Your task to perform on an android device: Go to accessibility settings Image 0: 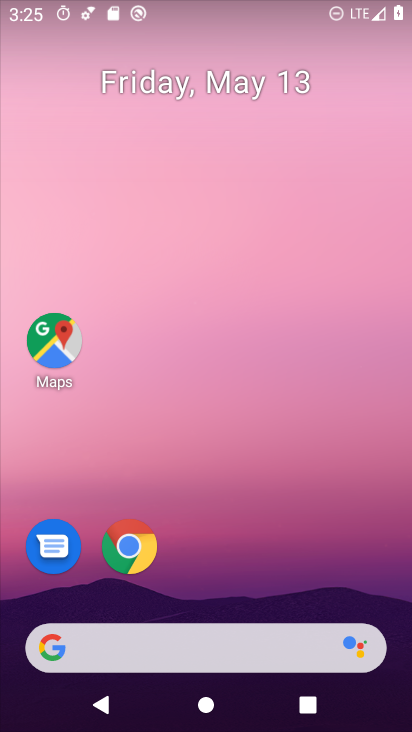
Step 0: drag from (205, 606) to (205, 370)
Your task to perform on an android device: Go to accessibility settings Image 1: 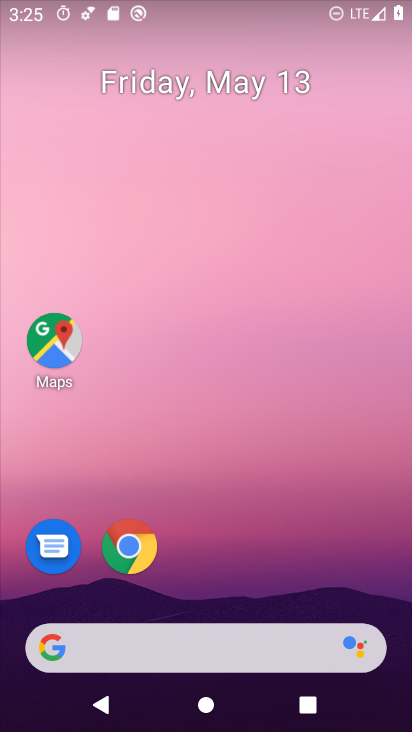
Step 1: drag from (219, 633) to (283, 228)
Your task to perform on an android device: Go to accessibility settings Image 2: 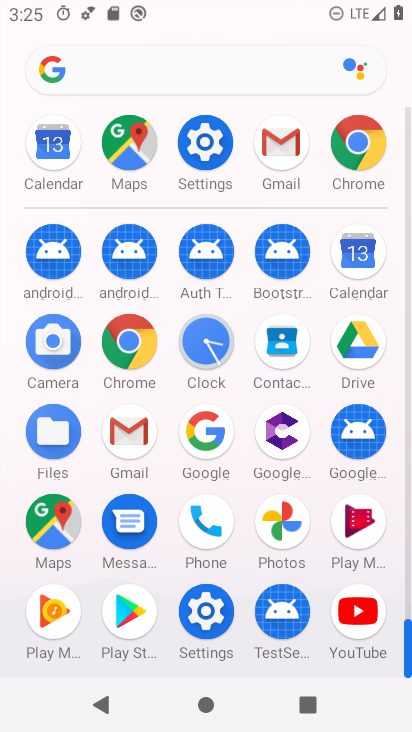
Step 2: click (218, 153)
Your task to perform on an android device: Go to accessibility settings Image 3: 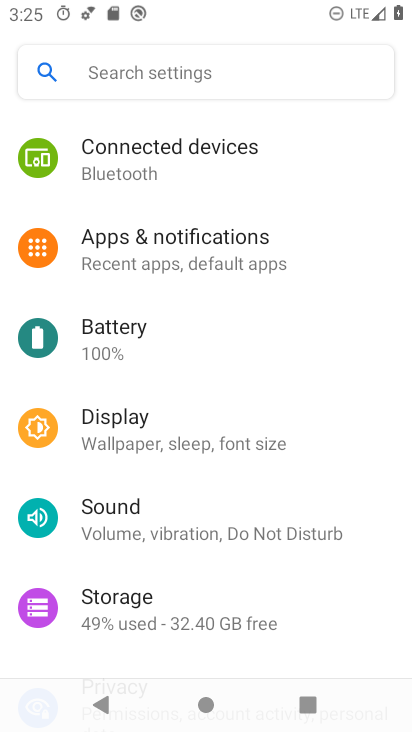
Step 3: drag from (194, 470) to (227, 244)
Your task to perform on an android device: Go to accessibility settings Image 4: 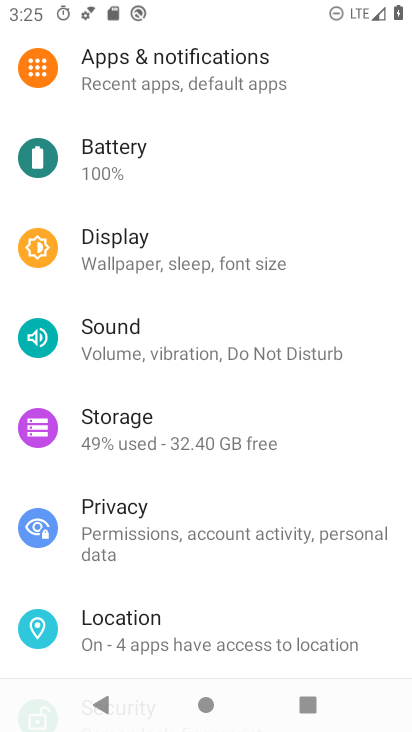
Step 4: drag from (200, 458) to (220, 271)
Your task to perform on an android device: Go to accessibility settings Image 5: 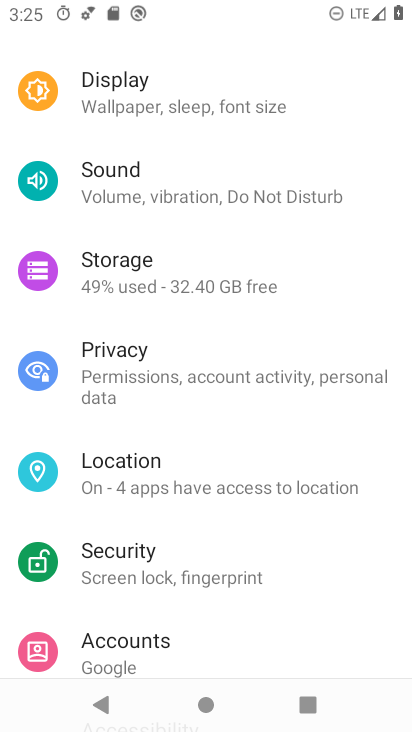
Step 5: drag from (199, 565) to (230, 362)
Your task to perform on an android device: Go to accessibility settings Image 6: 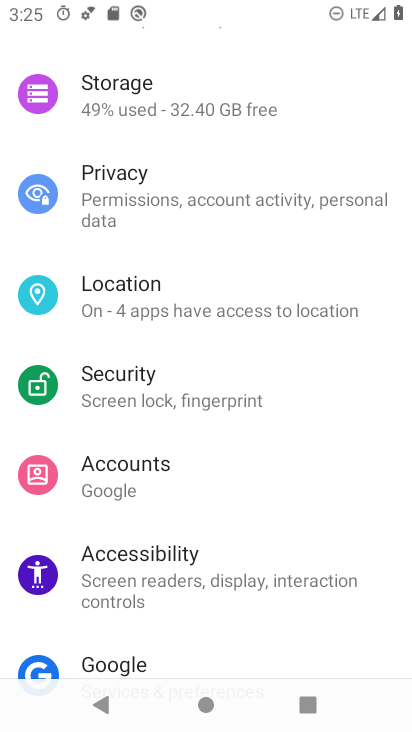
Step 6: click (195, 583)
Your task to perform on an android device: Go to accessibility settings Image 7: 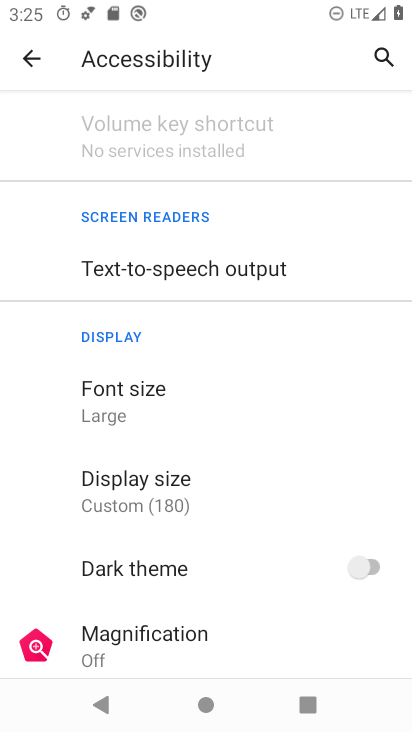
Step 7: task complete